Your task to perform on an android device: toggle notifications settings in the gmail app Image 0: 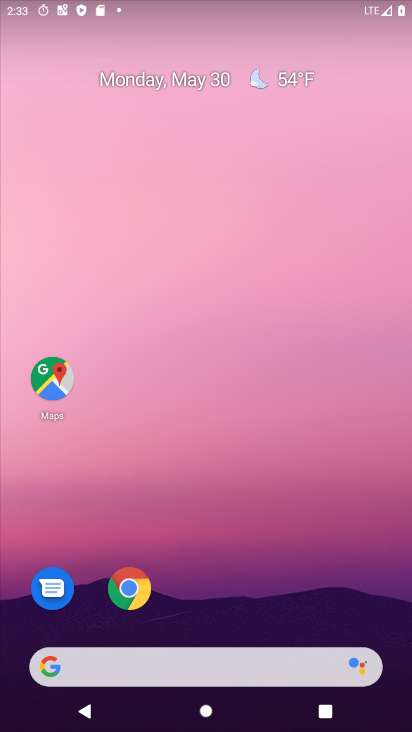
Step 0: drag from (214, 601) to (217, 60)
Your task to perform on an android device: toggle notifications settings in the gmail app Image 1: 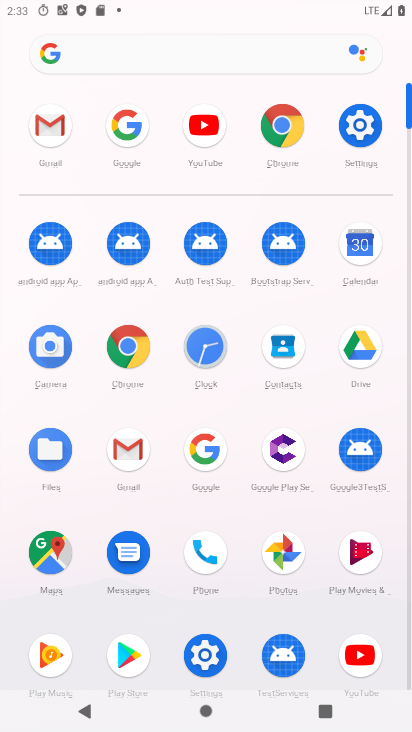
Step 1: click (135, 444)
Your task to perform on an android device: toggle notifications settings in the gmail app Image 2: 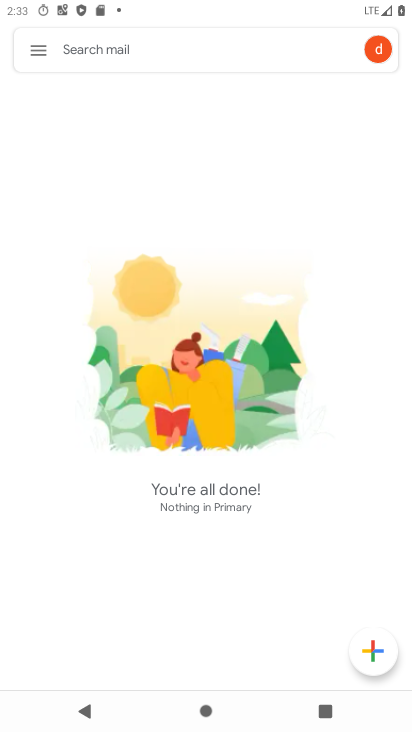
Step 2: click (37, 46)
Your task to perform on an android device: toggle notifications settings in the gmail app Image 3: 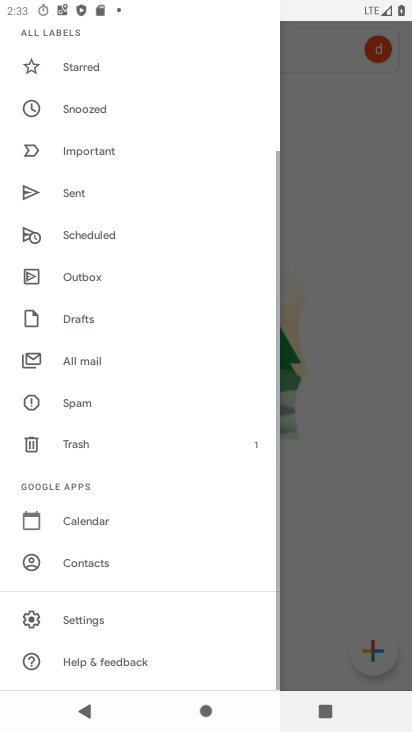
Step 3: click (137, 615)
Your task to perform on an android device: toggle notifications settings in the gmail app Image 4: 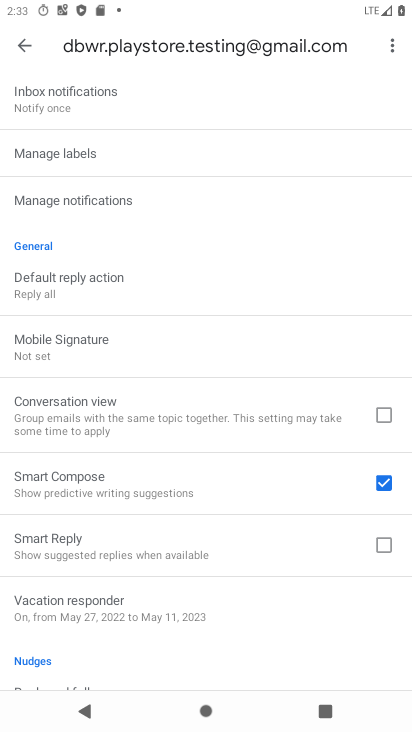
Step 4: drag from (75, 629) to (75, 453)
Your task to perform on an android device: toggle notifications settings in the gmail app Image 5: 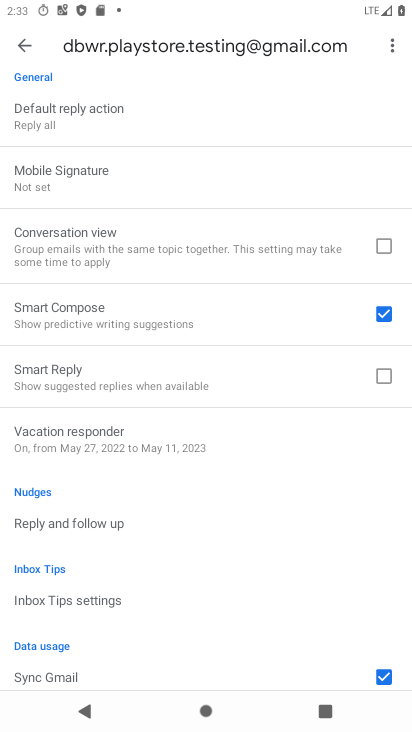
Step 5: click (119, 433)
Your task to perform on an android device: toggle notifications settings in the gmail app Image 6: 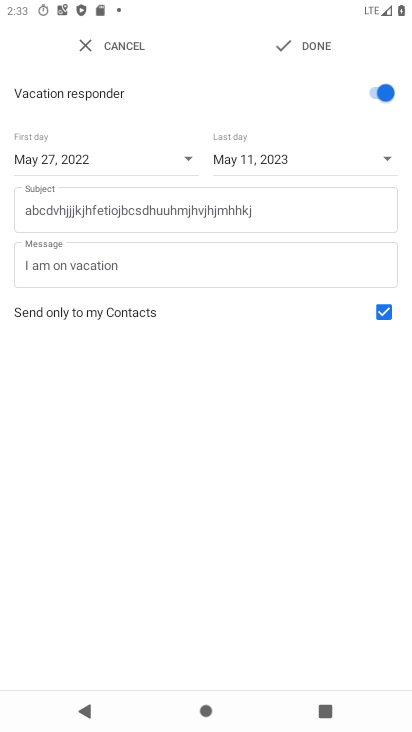
Step 6: press back button
Your task to perform on an android device: toggle notifications settings in the gmail app Image 7: 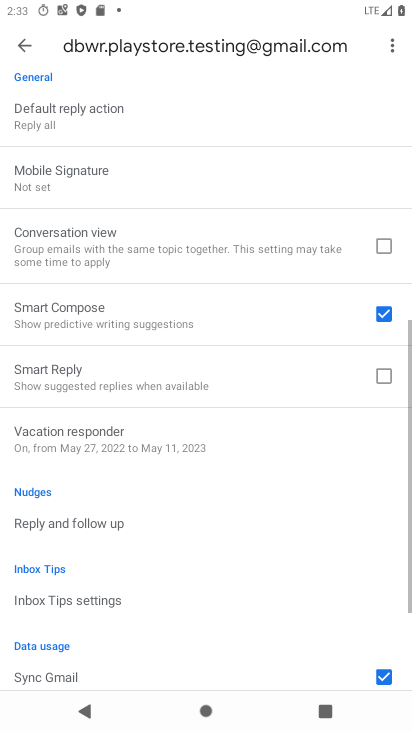
Step 7: drag from (99, 166) to (134, 494)
Your task to perform on an android device: toggle notifications settings in the gmail app Image 8: 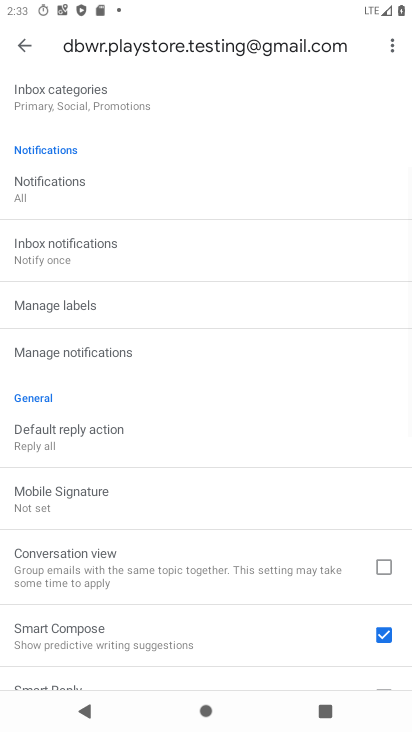
Step 8: click (17, 198)
Your task to perform on an android device: toggle notifications settings in the gmail app Image 9: 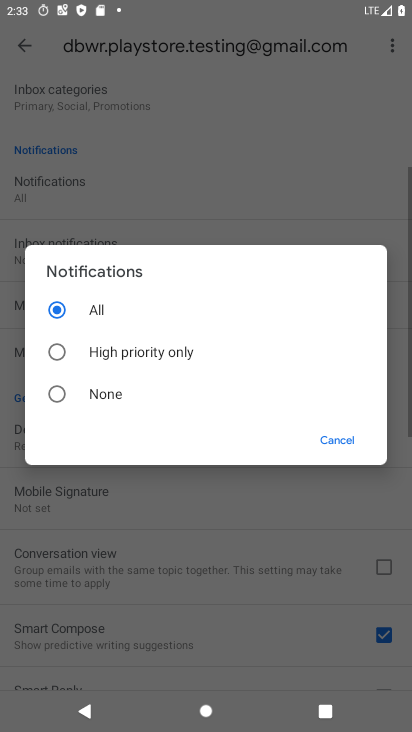
Step 9: click (48, 391)
Your task to perform on an android device: toggle notifications settings in the gmail app Image 10: 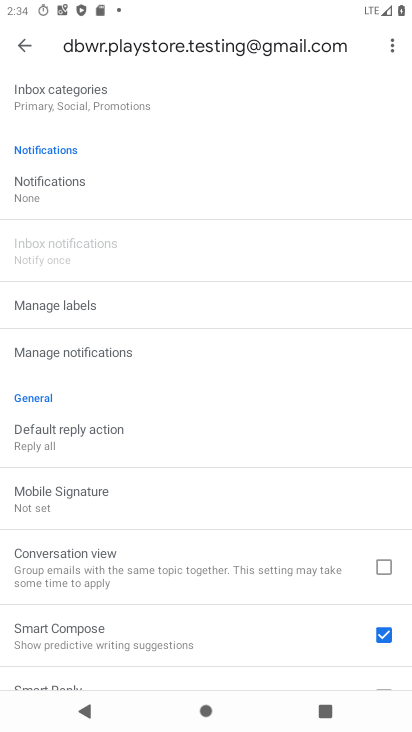
Step 10: task complete